Your task to perform on an android device: turn notification dots off Image 0: 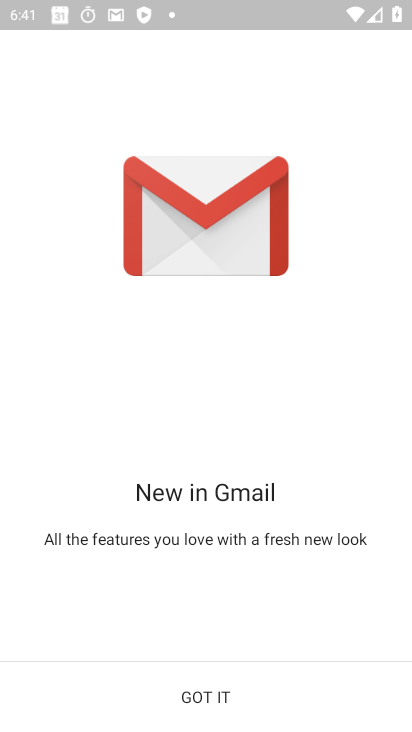
Step 0: press home button
Your task to perform on an android device: turn notification dots off Image 1: 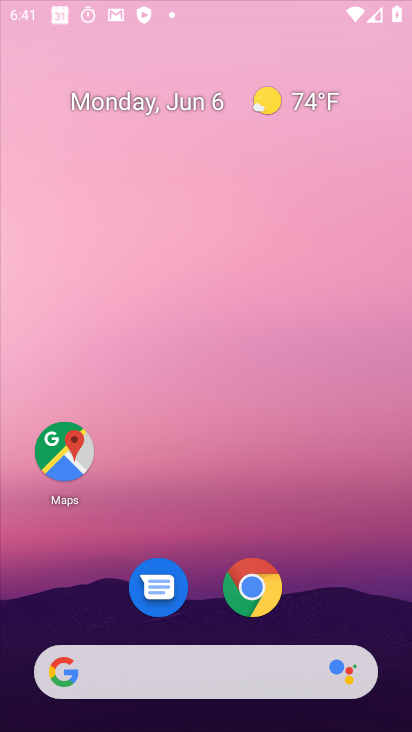
Step 1: drag from (410, 648) to (301, 28)
Your task to perform on an android device: turn notification dots off Image 2: 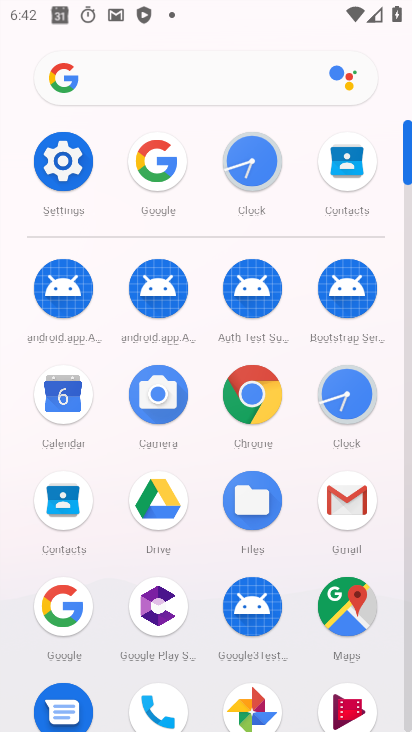
Step 2: click (76, 170)
Your task to perform on an android device: turn notification dots off Image 3: 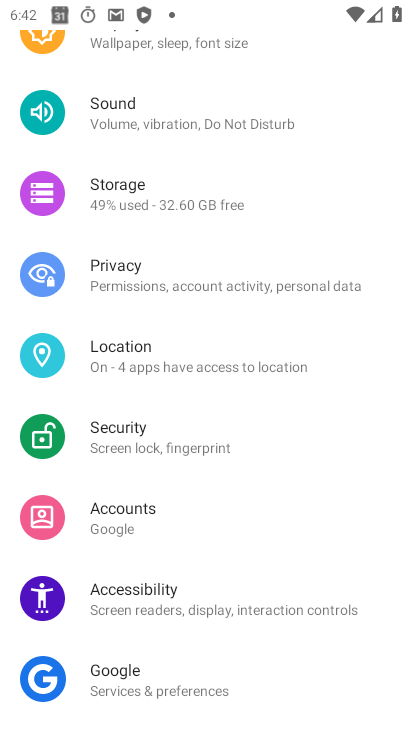
Step 3: drag from (222, 81) to (242, 587)
Your task to perform on an android device: turn notification dots off Image 4: 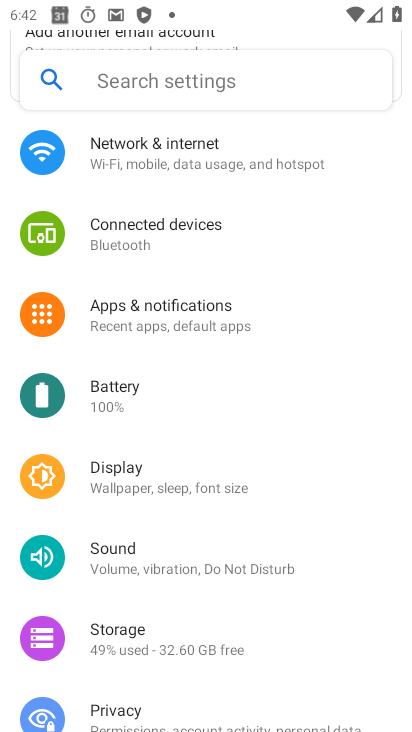
Step 4: click (236, 322)
Your task to perform on an android device: turn notification dots off Image 5: 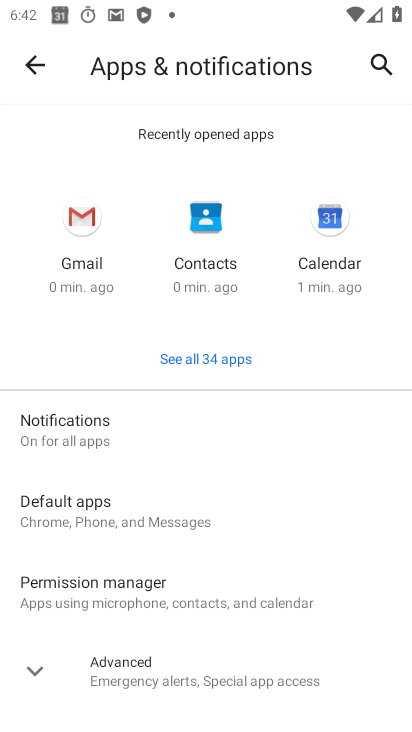
Step 5: click (78, 686)
Your task to perform on an android device: turn notification dots off Image 6: 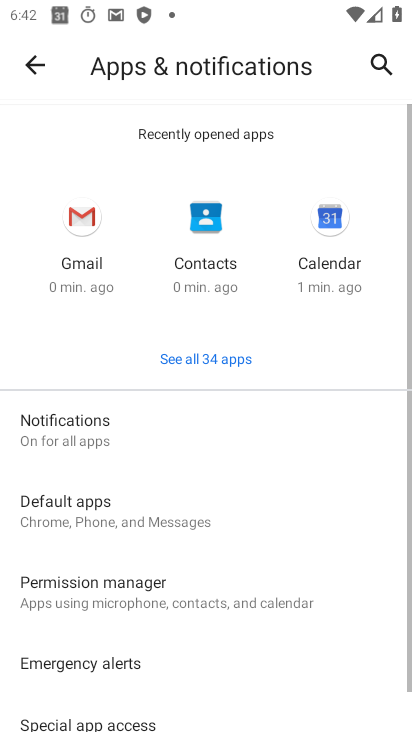
Step 6: click (77, 426)
Your task to perform on an android device: turn notification dots off Image 7: 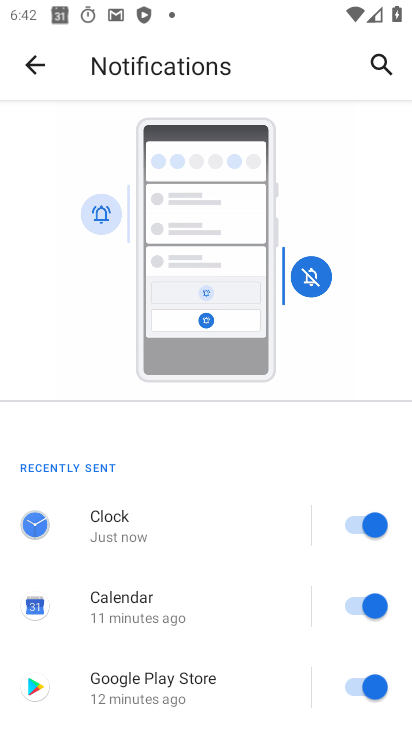
Step 7: drag from (119, 679) to (184, 7)
Your task to perform on an android device: turn notification dots off Image 8: 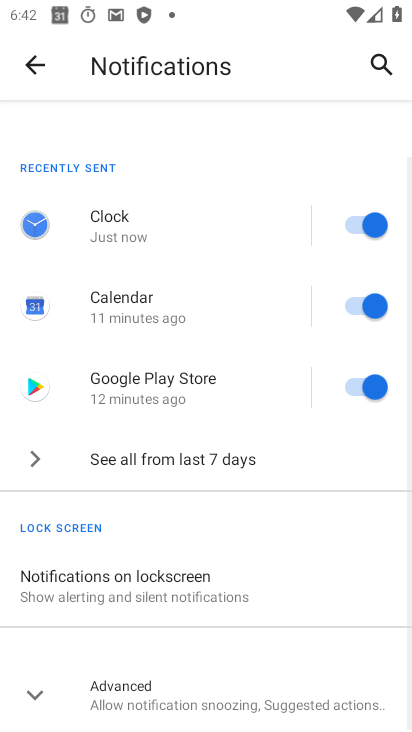
Step 8: click (128, 667)
Your task to perform on an android device: turn notification dots off Image 9: 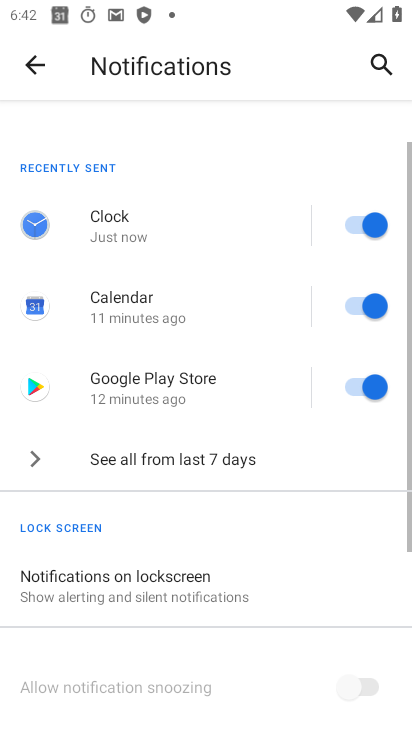
Step 9: task complete